Your task to perform on an android device: change the upload size in google photos Image 0: 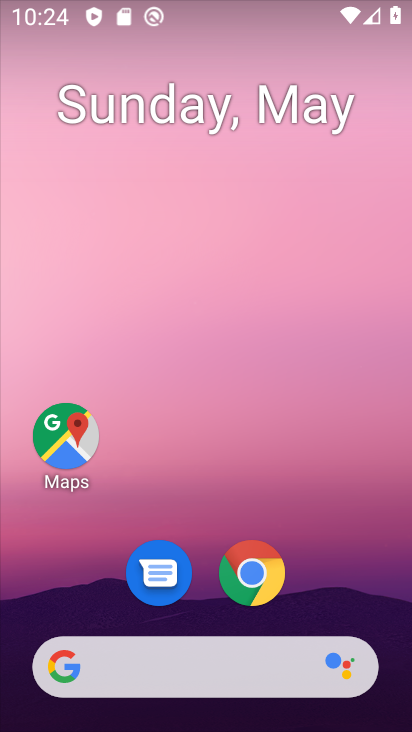
Step 0: drag from (382, 599) to (291, 240)
Your task to perform on an android device: change the upload size in google photos Image 1: 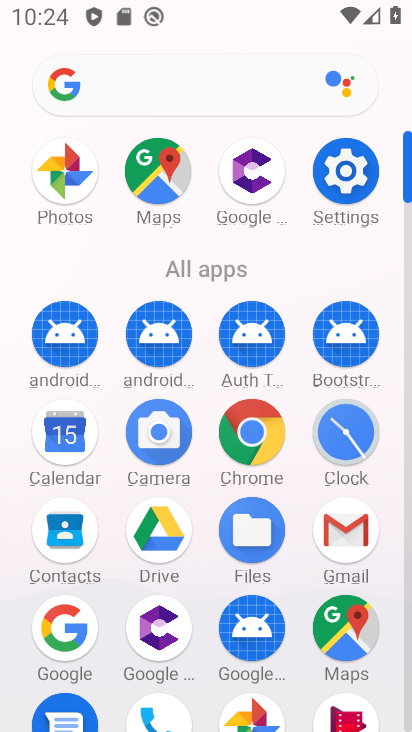
Step 1: click (69, 165)
Your task to perform on an android device: change the upload size in google photos Image 2: 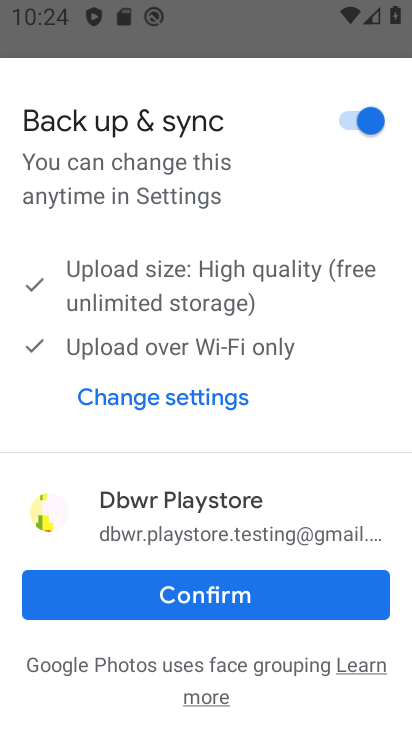
Step 2: click (244, 607)
Your task to perform on an android device: change the upload size in google photos Image 3: 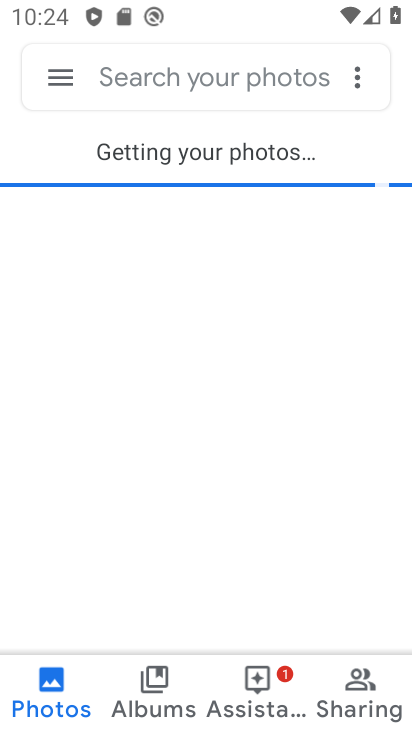
Step 3: click (64, 78)
Your task to perform on an android device: change the upload size in google photos Image 4: 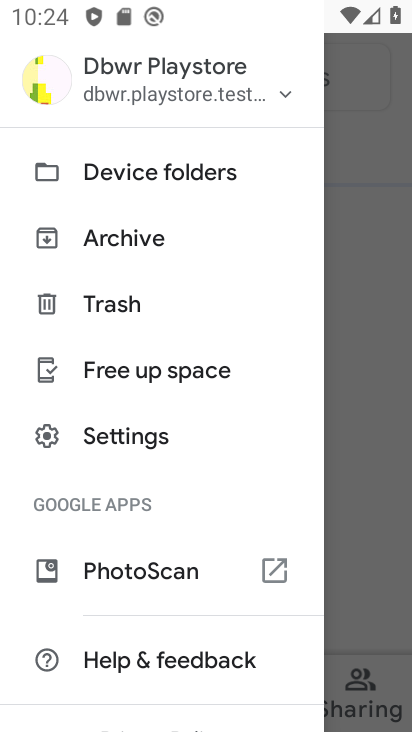
Step 4: click (190, 445)
Your task to perform on an android device: change the upload size in google photos Image 5: 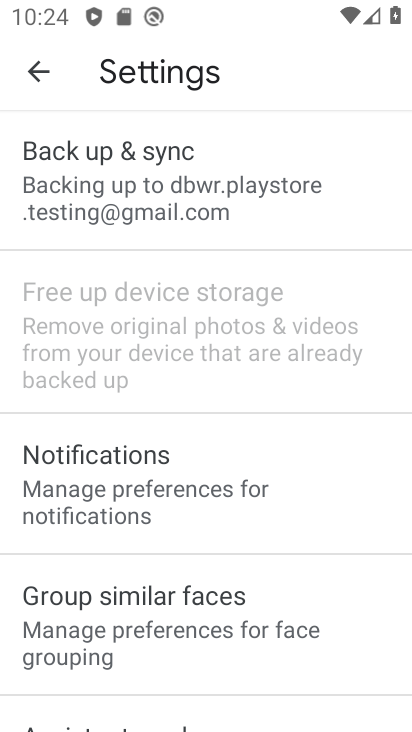
Step 5: click (230, 172)
Your task to perform on an android device: change the upload size in google photos Image 6: 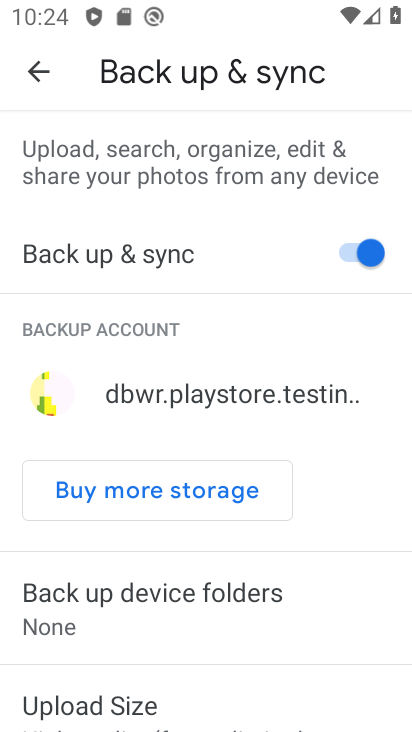
Step 6: drag from (286, 653) to (202, 223)
Your task to perform on an android device: change the upload size in google photos Image 7: 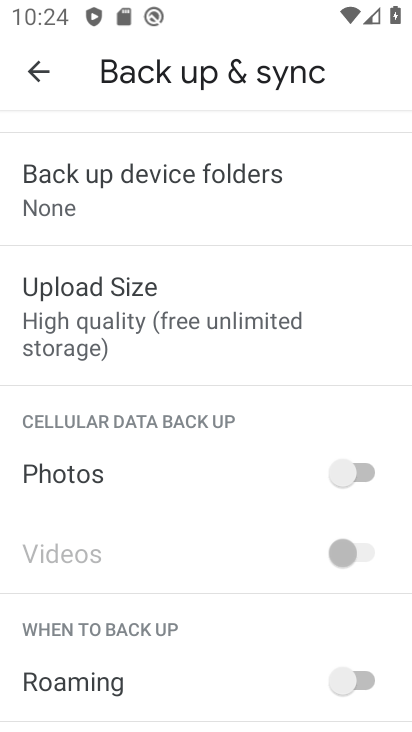
Step 7: drag from (251, 659) to (217, 335)
Your task to perform on an android device: change the upload size in google photos Image 8: 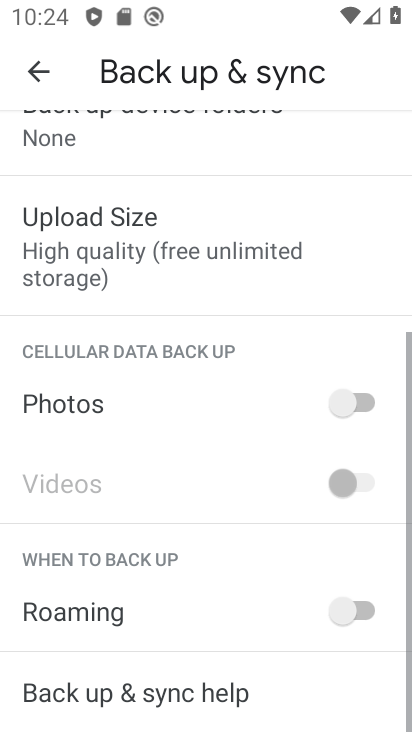
Step 8: click (219, 311)
Your task to perform on an android device: change the upload size in google photos Image 9: 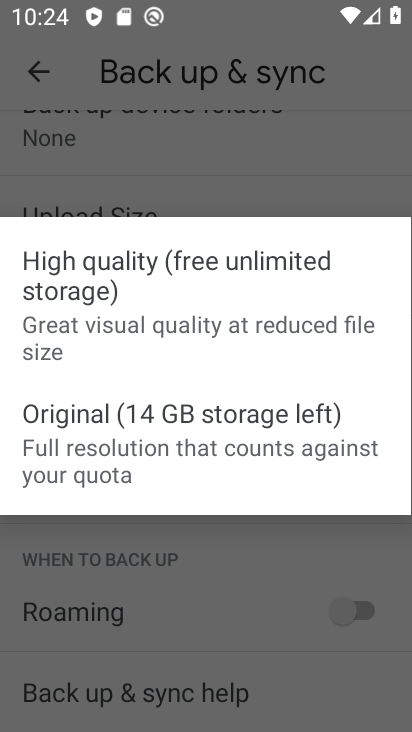
Step 9: click (212, 440)
Your task to perform on an android device: change the upload size in google photos Image 10: 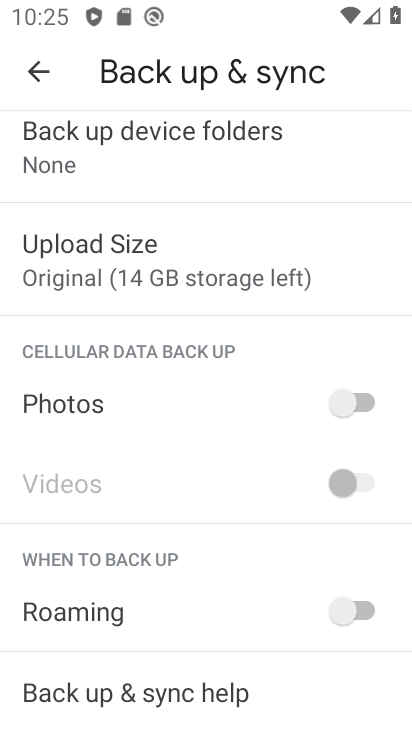
Step 10: task complete